Your task to perform on an android device: read, delete, or share a saved page in the chrome app Image 0: 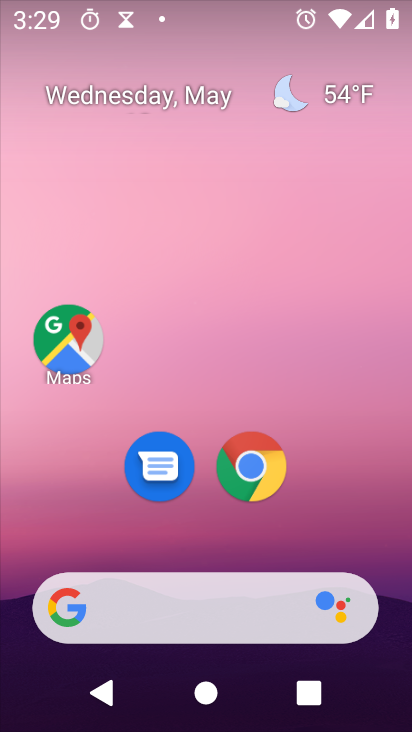
Step 0: click (256, 467)
Your task to perform on an android device: read, delete, or share a saved page in the chrome app Image 1: 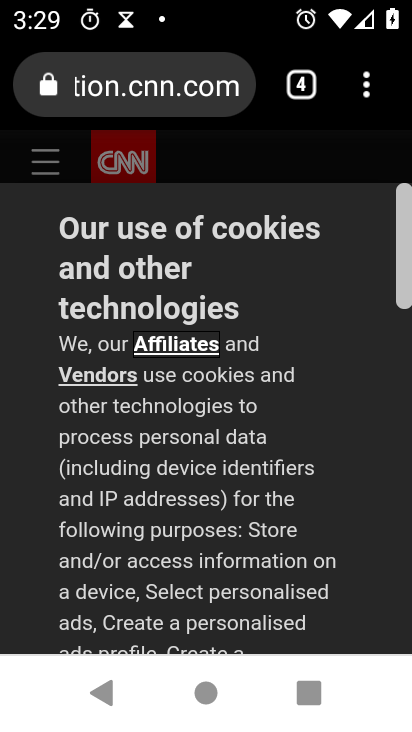
Step 1: click (377, 86)
Your task to perform on an android device: read, delete, or share a saved page in the chrome app Image 2: 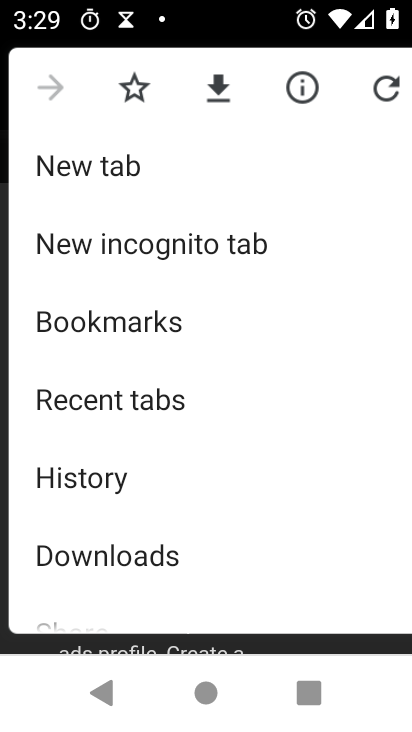
Step 2: click (204, 556)
Your task to perform on an android device: read, delete, or share a saved page in the chrome app Image 3: 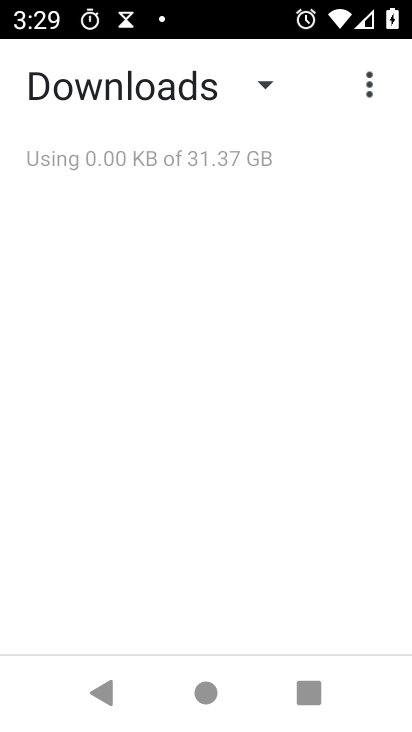
Step 3: click (203, 87)
Your task to perform on an android device: read, delete, or share a saved page in the chrome app Image 4: 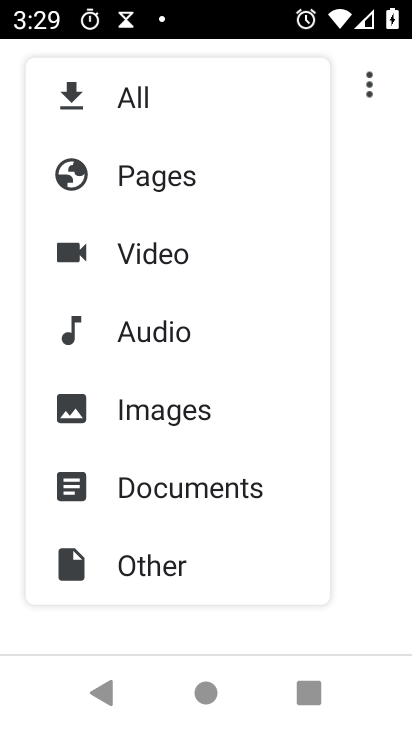
Step 4: click (192, 164)
Your task to perform on an android device: read, delete, or share a saved page in the chrome app Image 5: 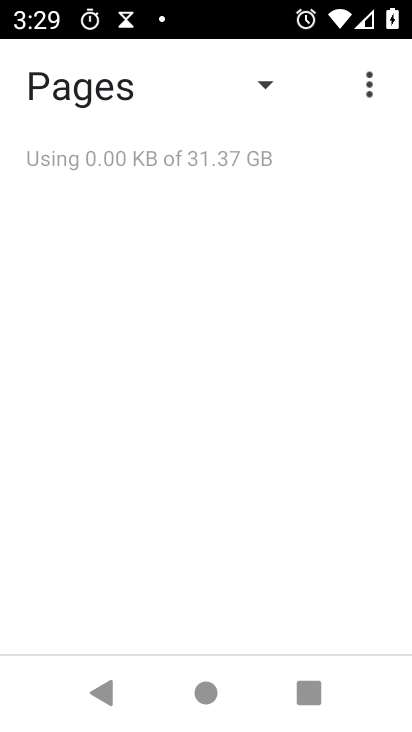
Step 5: task complete